Your task to perform on an android device: search for starred emails in the gmail app Image 0: 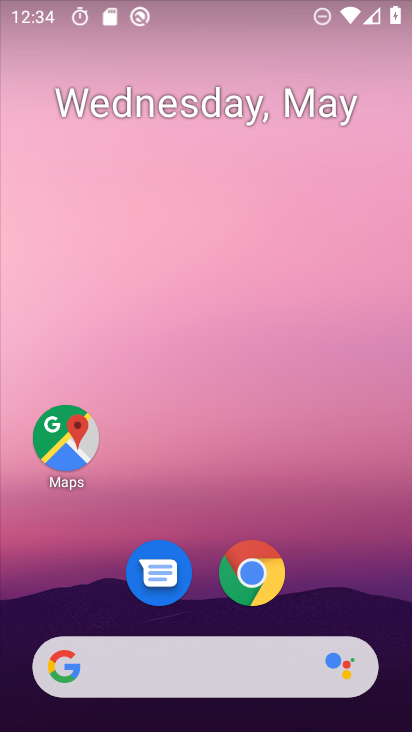
Step 0: drag from (320, 587) to (261, 56)
Your task to perform on an android device: search for starred emails in the gmail app Image 1: 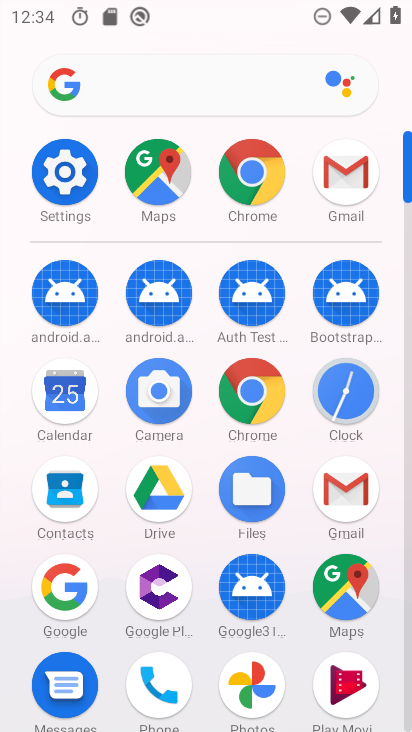
Step 1: click (342, 483)
Your task to perform on an android device: search for starred emails in the gmail app Image 2: 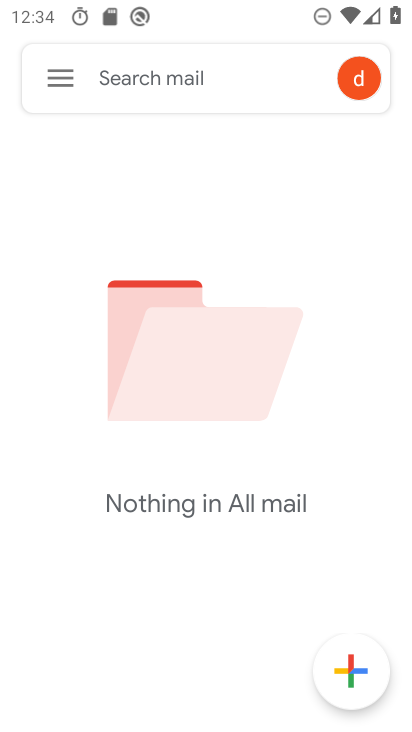
Step 2: click (65, 66)
Your task to perform on an android device: search for starred emails in the gmail app Image 3: 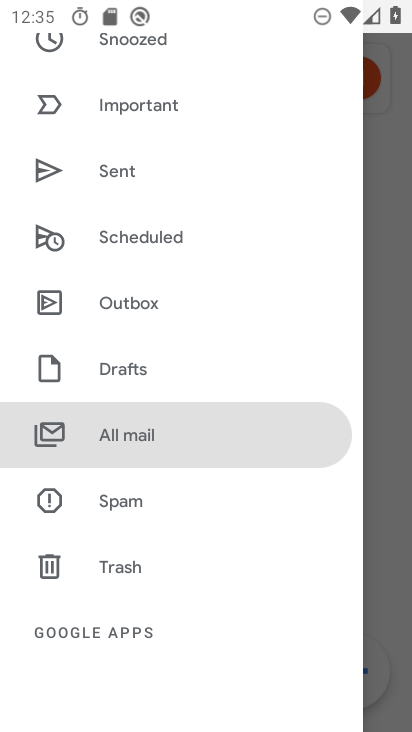
Step 3: click (169, 35)
Your task to perform on an android device: search for starred emails in the gmail app Image 4: 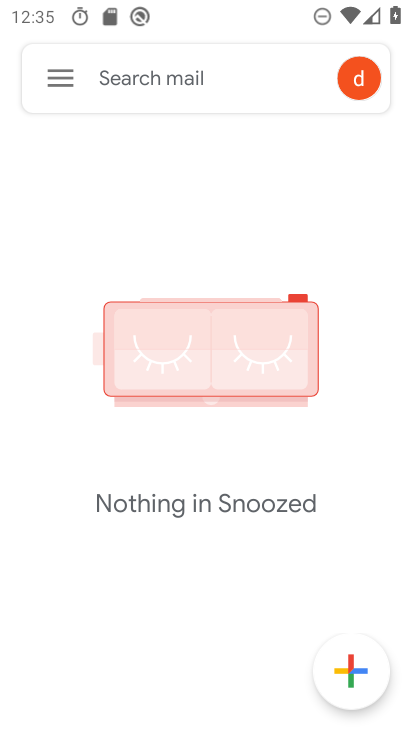
Step 4: click (58, 77)
Your task to perform on an android device: search for starred emails in the gmail app Image 5: 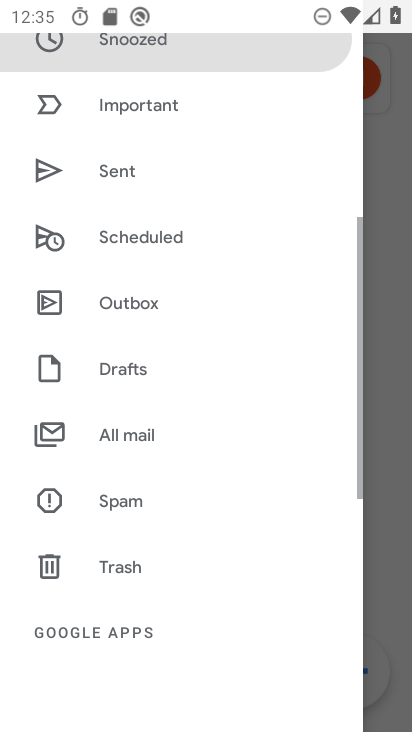
Step 5: drag from (204, 145) to (275, 573)
Your task to perform on an android device: search for starred emails in the gmail app Image 6: 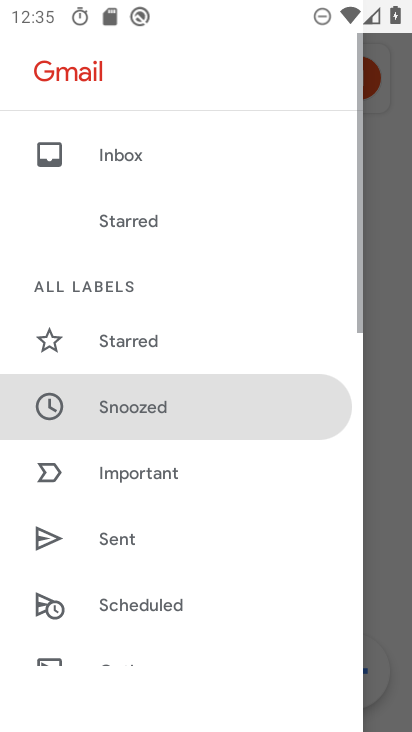
Step 6: click (149, 212)
Your task to perform on an android device: search for starred emails in the gmail app Image 7: 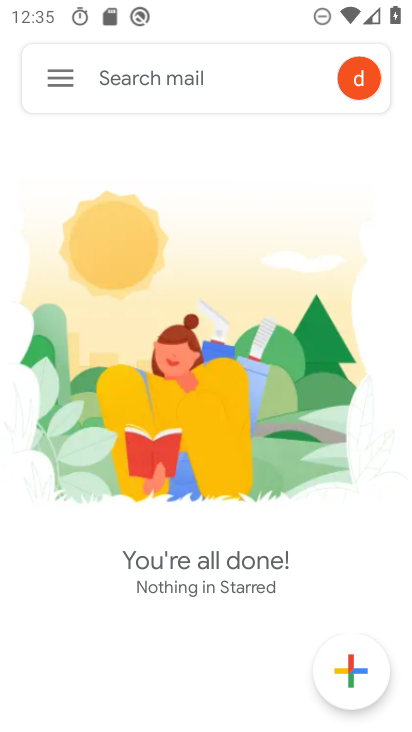
Step 7: task complete